Your task to perform on an android device: open sync settings in chrome Image 0: 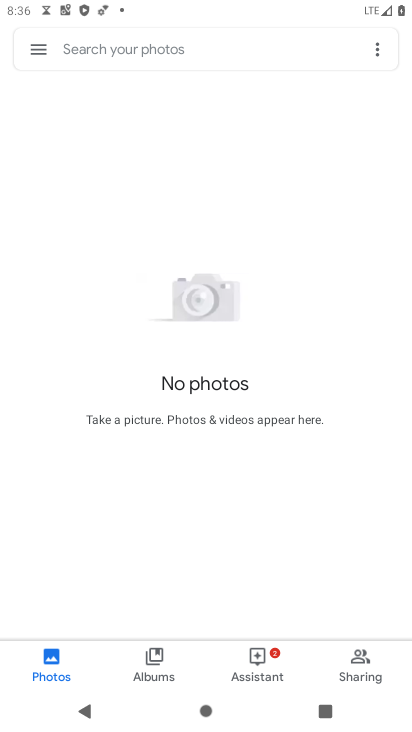
Step 0: press home button
Your task to perform on an android device: open sync settings in chrome Image 1: 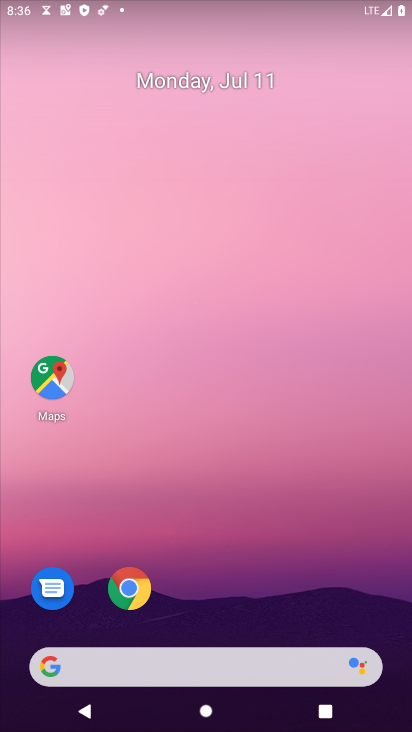
Step 1: drag from (222, 634) to (323, 49)
Your task to perform on an android device: open sync settings in chrome Image 2: 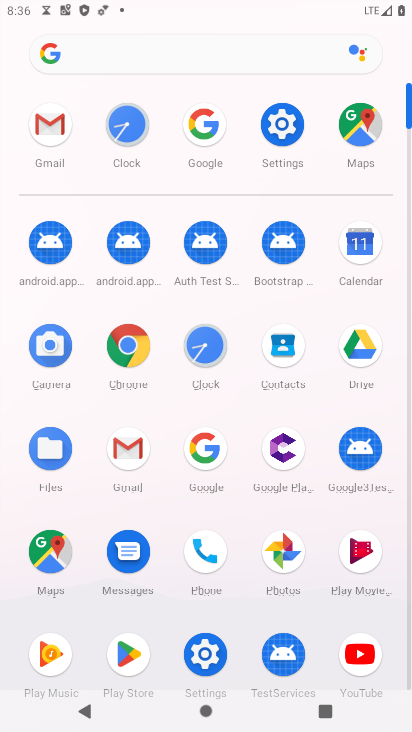
Step 2: click (128, 359)
Your task to perform on an android device: open sync settings in chrome Image 3: 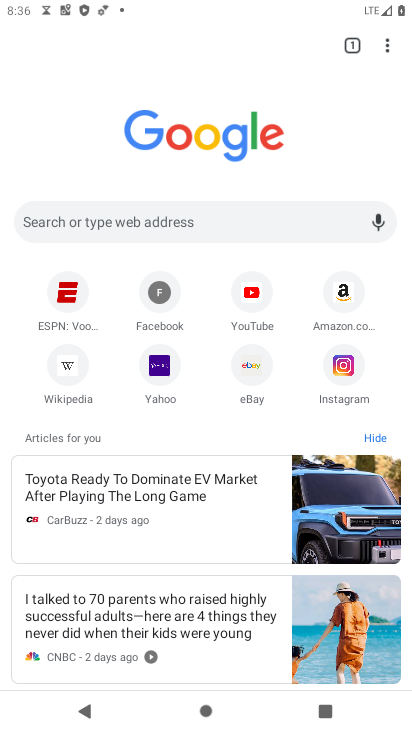
Step 3: drag from (389, 51) to (237, 384)
Your task to perform on an android device: open sync settings in chrome Image 4: 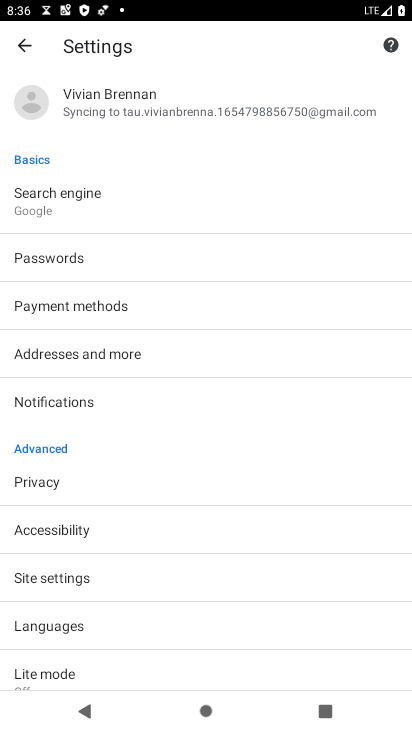
Step 4: click (142, 111)
Your task to perform on an android device: open sync settings in chrome Image 5: 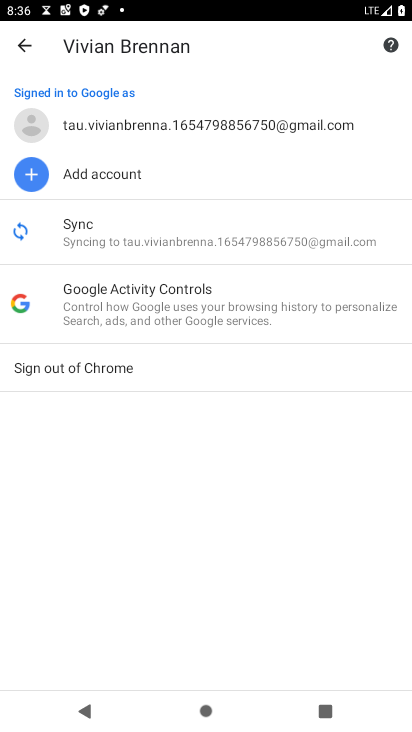
Step 5: click (116, 238)
Your task to perform on an android device: open sync settings in chrome Image 6: 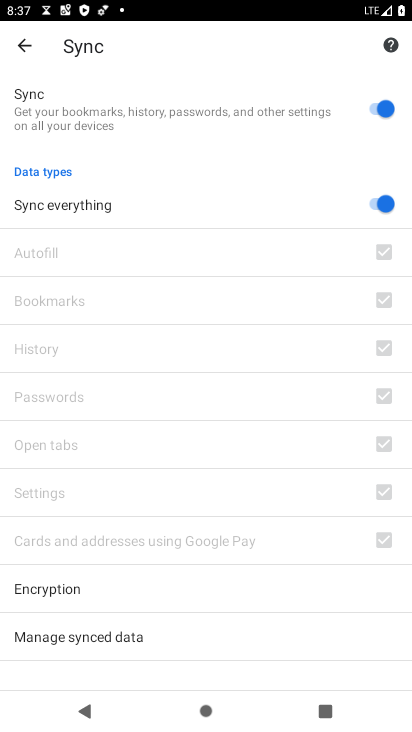
Step 6: task complete